Your task to perform on an android device: show emergency info Image 0: 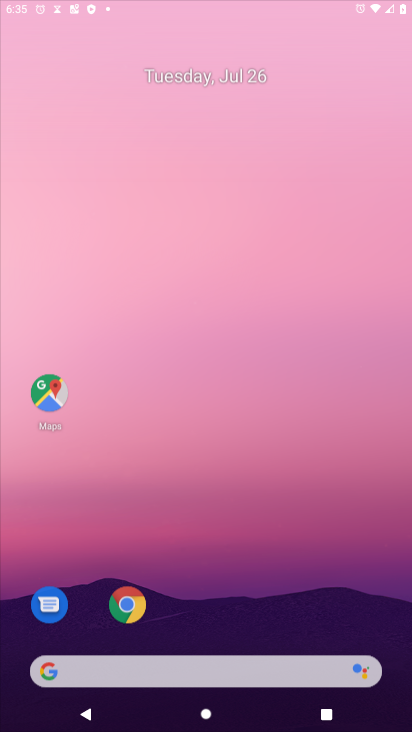
Step 0: press home button
Your task to perform on an android device: show emergency info Image 1: 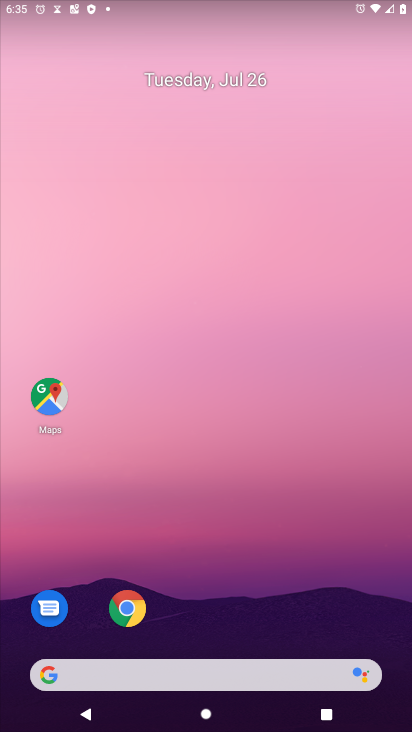
Step 1: drag from (206, 624) to (253, 18)
Your task to perform on an android device: show emergency info Image 2: 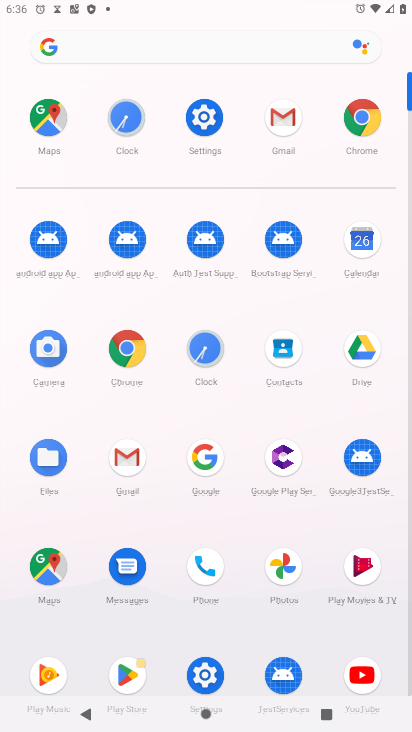
Step 2: click (202, 130)
Your task to perform on an android device: show emergency info Image 3: 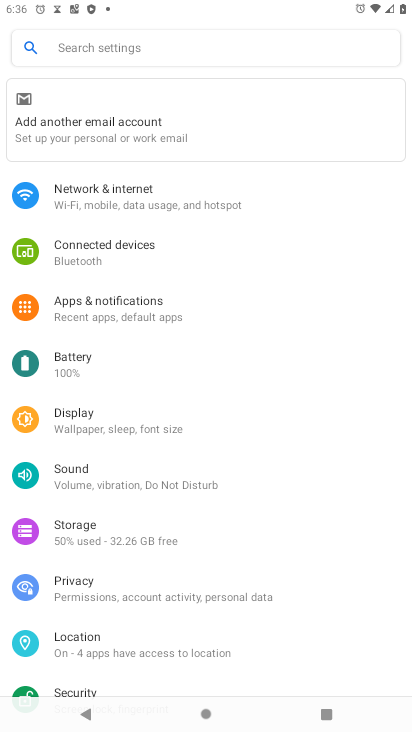
Step 3: drag from (265, 661) to (221, 0)
Your task to perform on an android device: show emergency info Image 4: 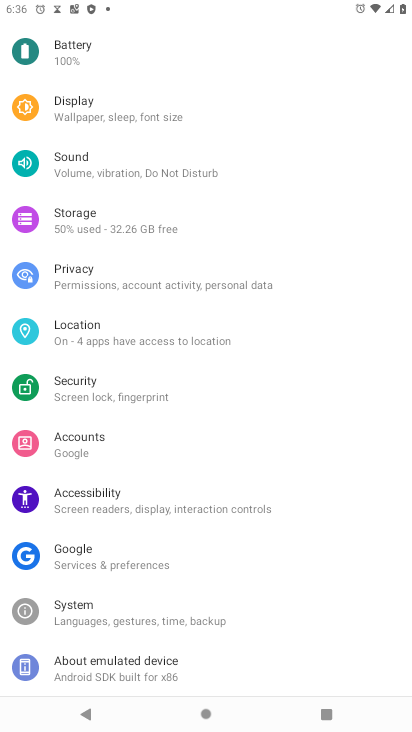
Step 4: click (72, 674)
Your task to perform on an android device: show emergency info Image 5: 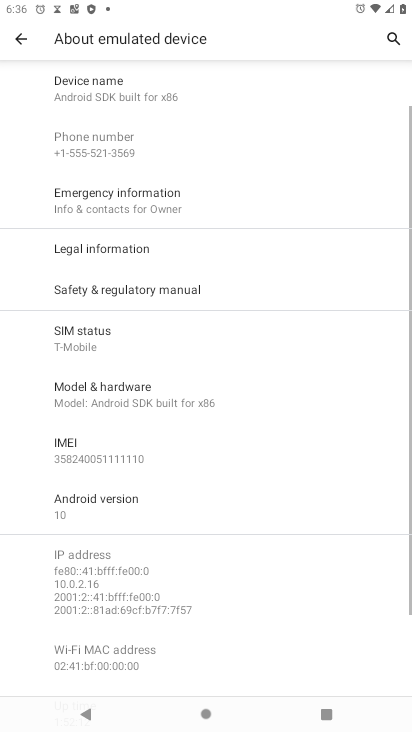
Step 5: click (101, 200)
Your task to perform on an android device: show emergency info Image 6: 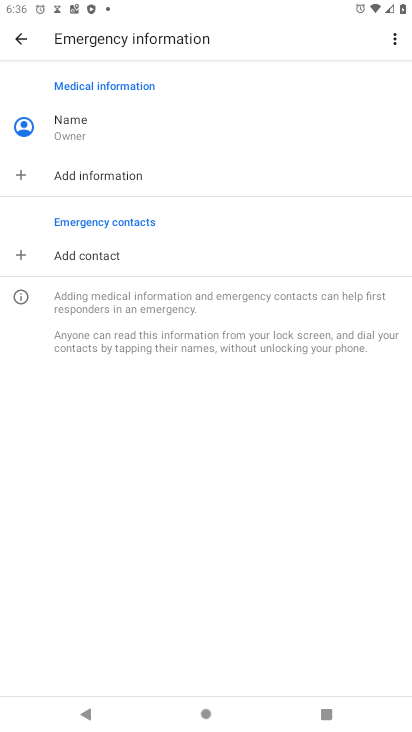
Step 6: task complete